Your task to perform on an android device: Go to Yahoo.com Image 0: 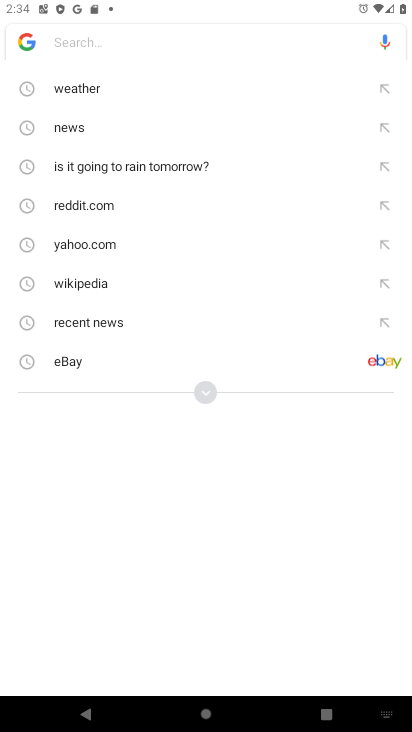
Step 0: click (78, 249)
Your task to perform on an android device: Go to Yahoo.com Image 1: 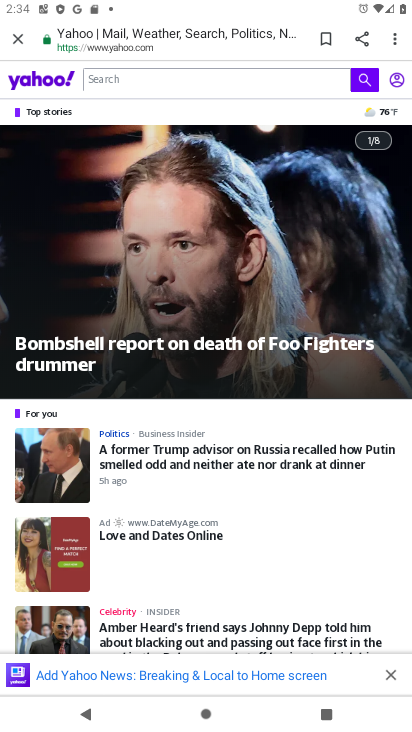
Step 1: task complete